Your task to perform on an android device: toggle pop-ups in chrome Image 0: 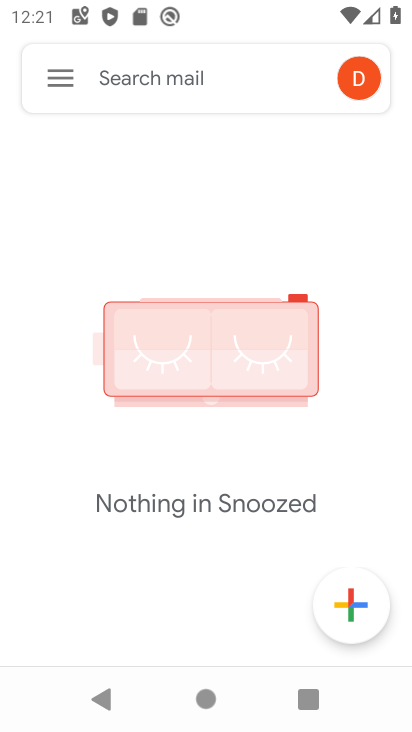
Step 0: press home button
Your task to perform on an android device: toggle pop-ups in chrome Image 1: 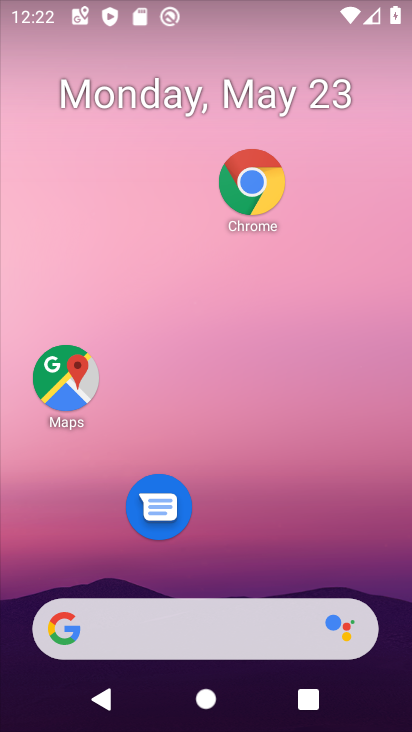
Step 1: click (247, 175)
Your task to perform on an android device: toggle pop-ups in chrome Image 2: 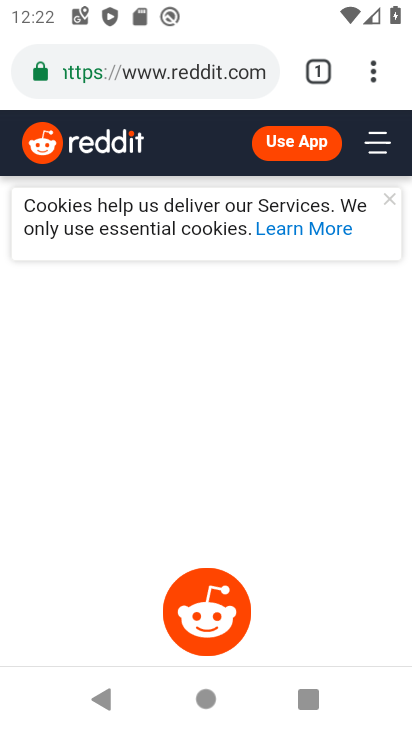
Step 2: click (373, 75)
Your task to perform on an android device: toggle pop-ups in chrome Image 3: 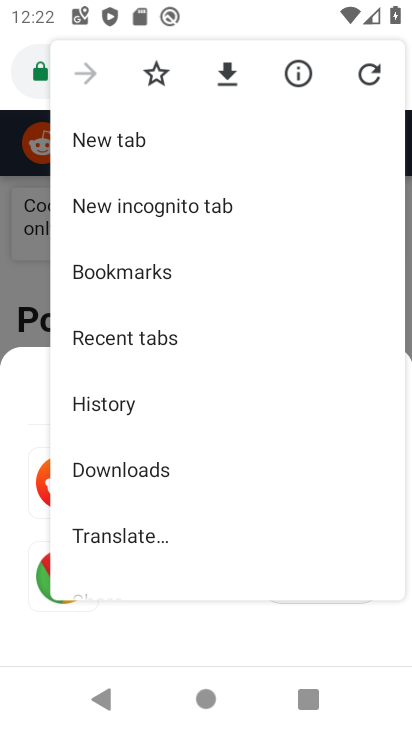
Step 3: drag from (244, 542) to (252, 239)
Your task to perform on an android device: toggle pop-ups in chrome Image 4: 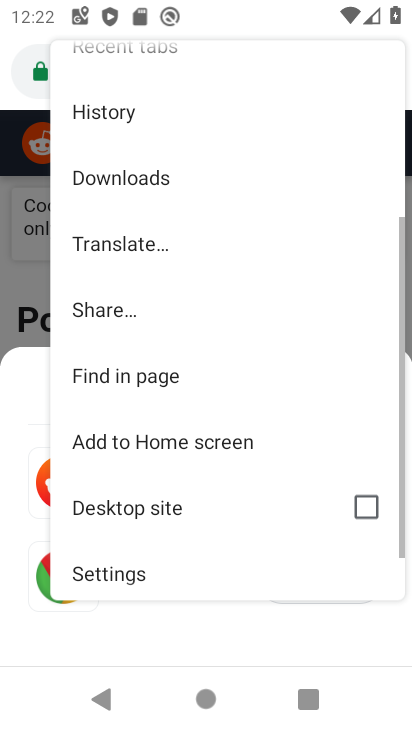
Step 4: click (127, 572)
Your task to perform on an android device: toggle pop-ups in chrome Image 5: 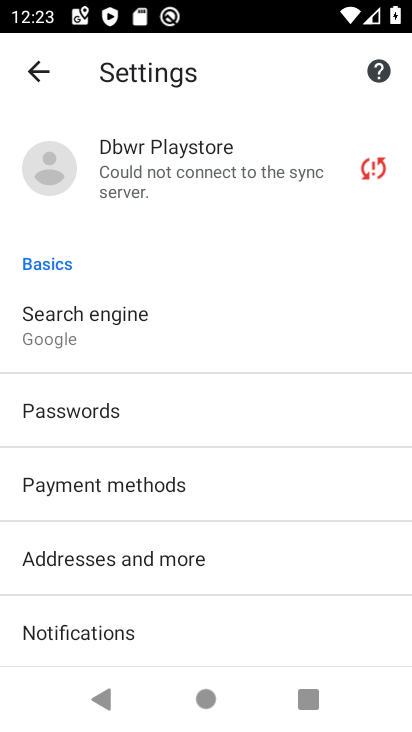
Step 5: drag from (202, 617) to (212, 132)
Your task to perform on an android device: toggle pop-ups in chrome Image 6: 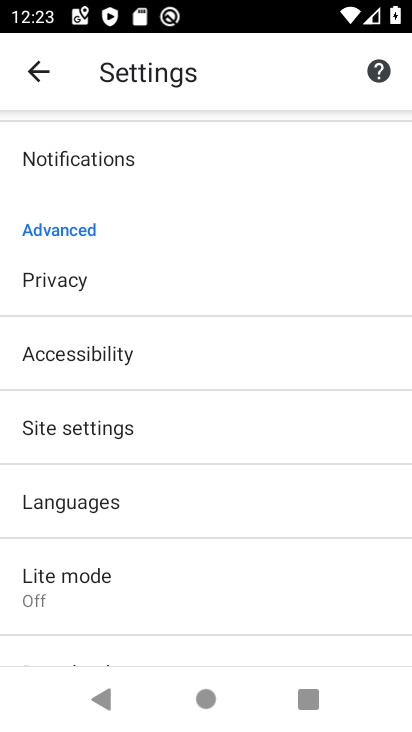
Step 6: click (114, 425)
Your task to perform on an android device: toggle pop-ups in chrome Image 7: 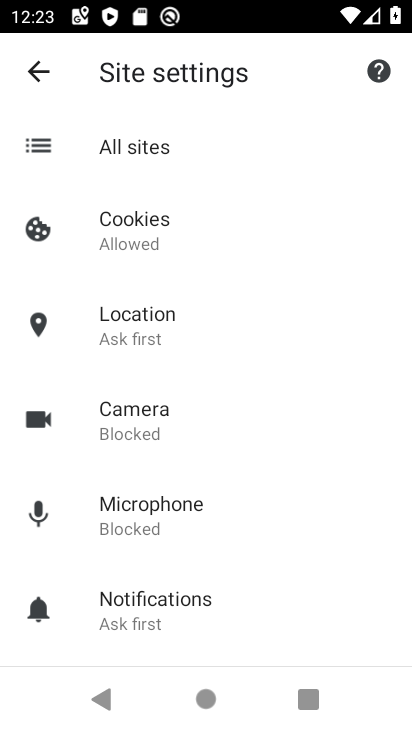
Step 7: drag from (217, 648) to (224, 250)
Your task to perform on an android device: toggle pop-ups in chrome Image 8: 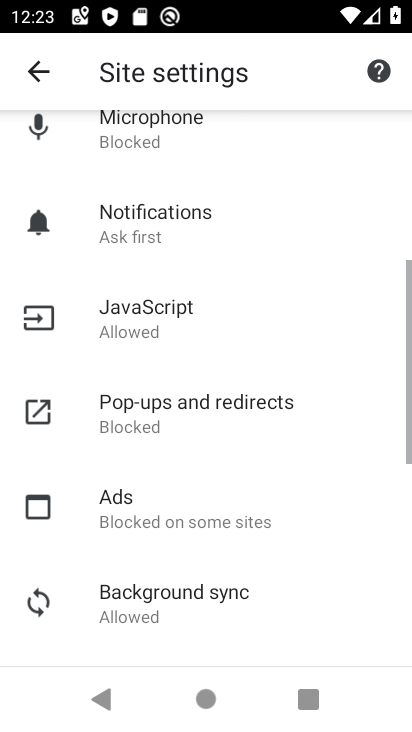
Step 8: click (191, 396)
Your task to perform on an android device: toggle pop-ups in chrome Image 9: 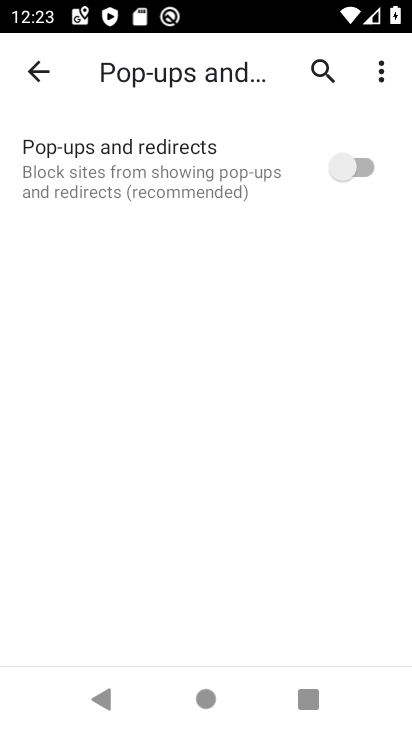
Step 9: click (377, 172)
Your task to perform on an android device: toggle pop-ups in chrome Image 10: 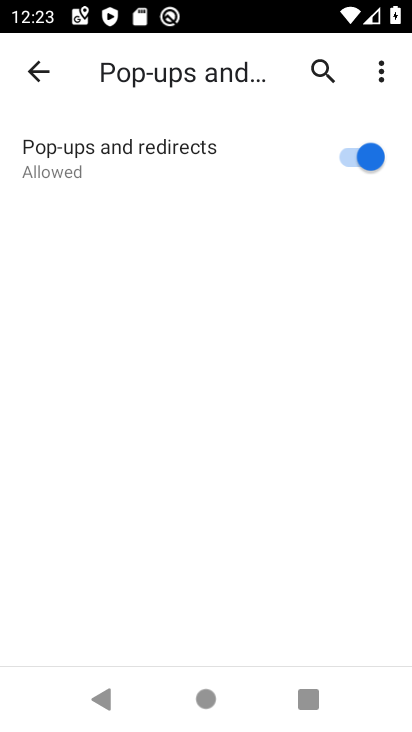
Step 10: click (342, 165)
Your task to perform on an android device: toggle pop-ups in chrome Image 11: 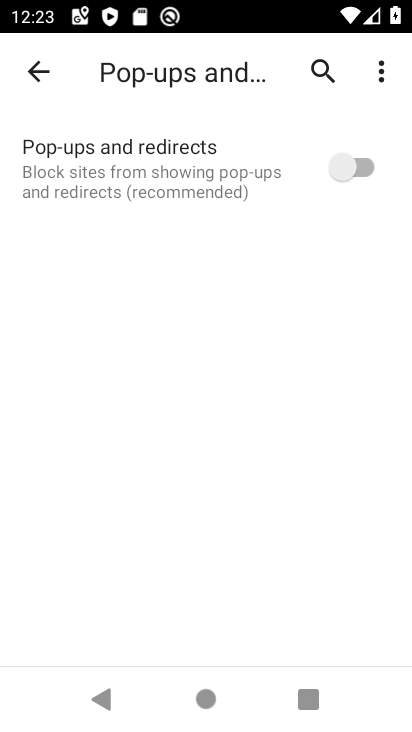
Step 11: task complete